Your task to perform on an android device: open a bookmark in the chrome app Image 0: 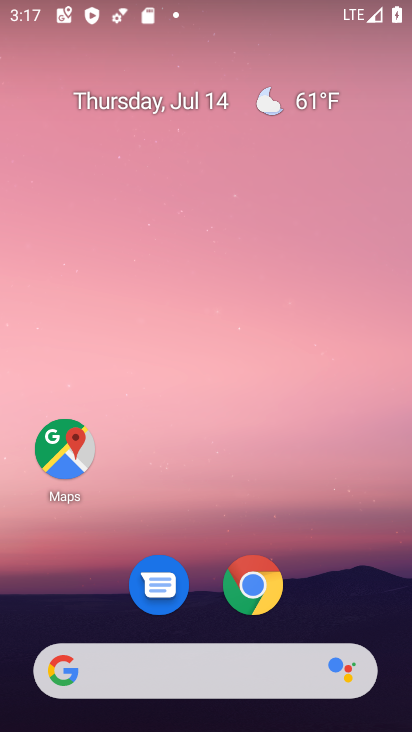
Step 0: click (260, 577)
Your task to perform on an android device: open a bookmark in the chrome app Image 1: 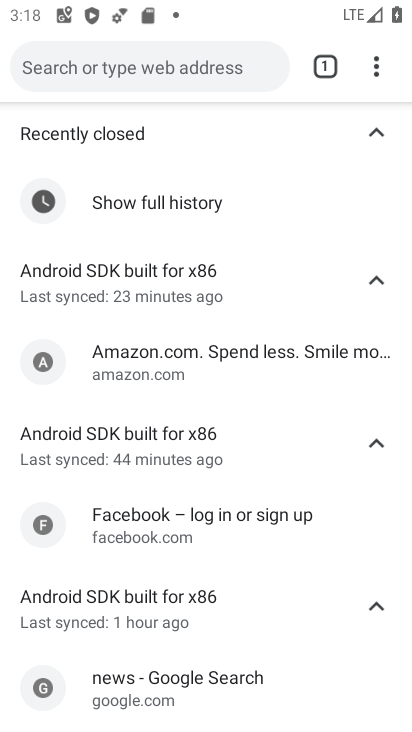
Step 1: click (372, 69)
Your task to perform on an android device: open a bookmark in the chrome app Image 2: 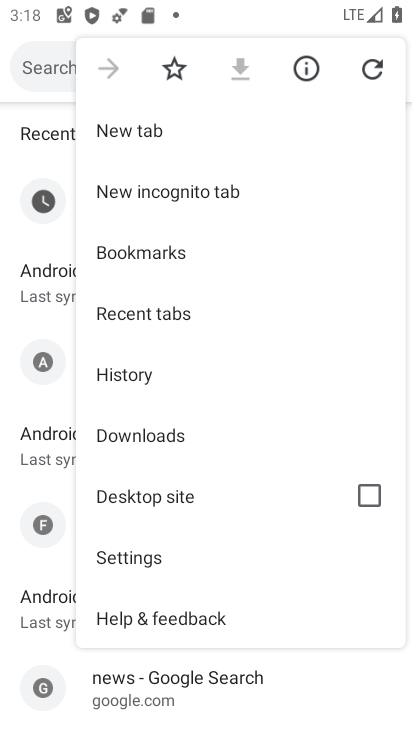
Step 2: click (178, 251)
Your task to perform on an android device: open a bookmark in the chrome app Image 3: 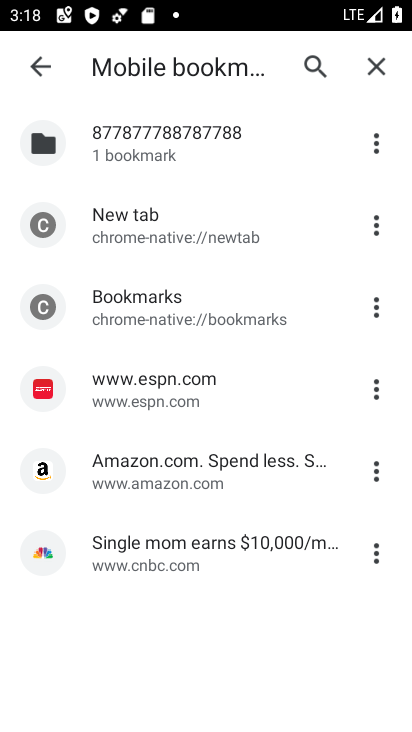
Step 3: click (204, 389)
Your task to perform on an android device: open a bookmark in the chrome app Image 4: 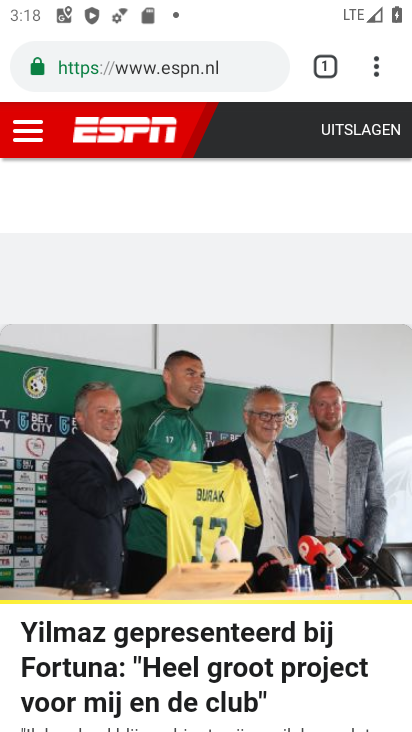
Step 4: task complete